Your task to perform on an android device: change the upload size in google photos Image 0: 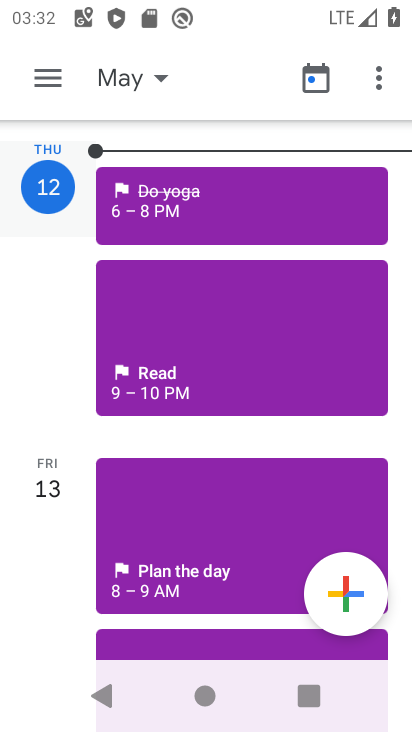
Step 0: press home button
Your task to perform on an android device: change the upload size in google photos Image 1: 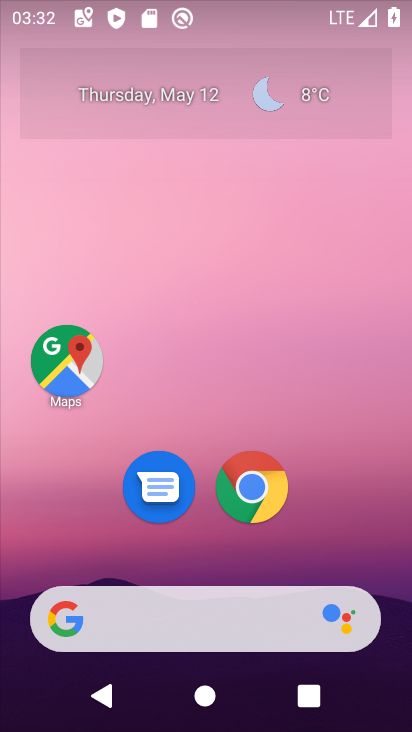
Step 1: drag from (351, 515) to (379, 173)
Your task to perform on an android device: change the upload size in google photos Image 2: 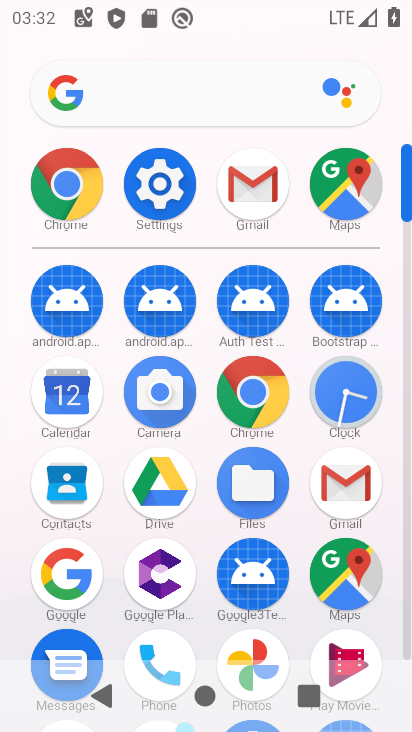
Step 2: drag from (301, 613) to (327, 396)
Your task to perform on an android device: change the upload size in google photos Image 3: 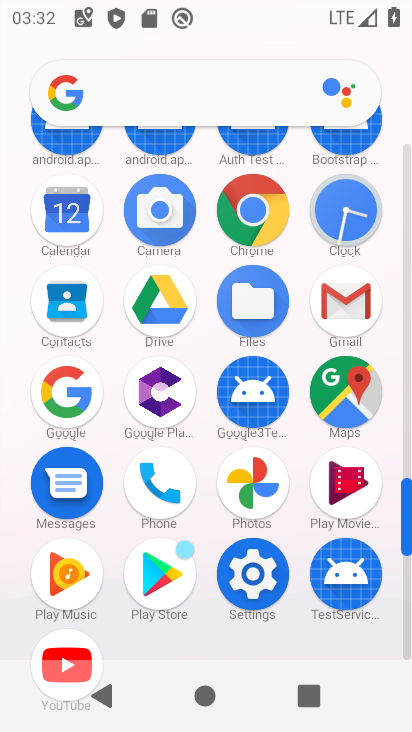
Step 3: click (268, 478)
Your task to perform on an android device: change the upload size in google photos Image 4: 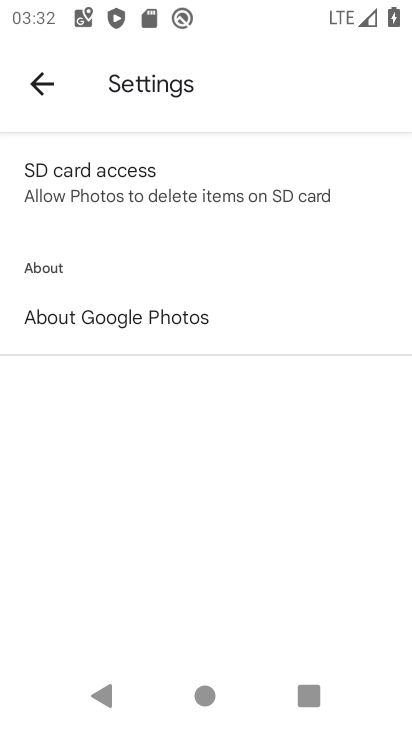
Step 4: click (55, 92)
Your task to perform on an android device: change the upload size in google photos Image 5: 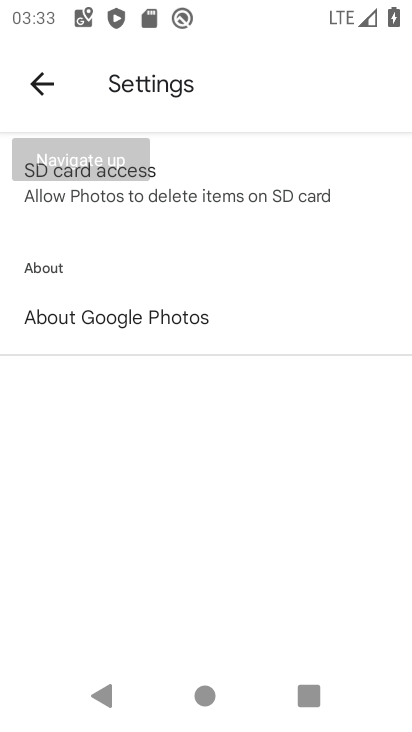
Step 5: click (39, 79)
Your task to perform on an android device: change the upload size in google photos Image 6: 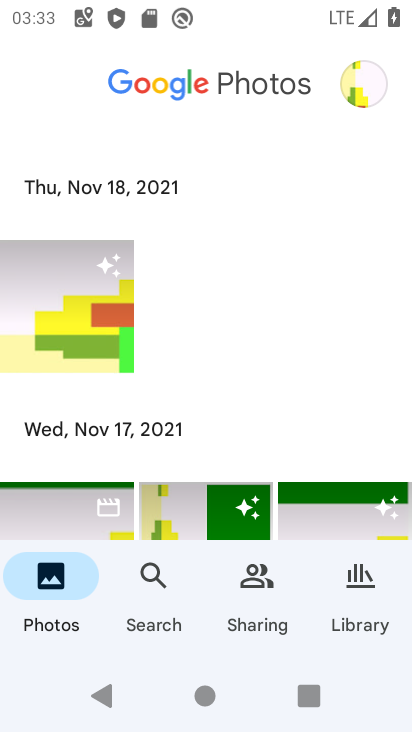
Step 6: click (353, 82)
Your task to perform on an android device: change the upload size in google photos Image 7: 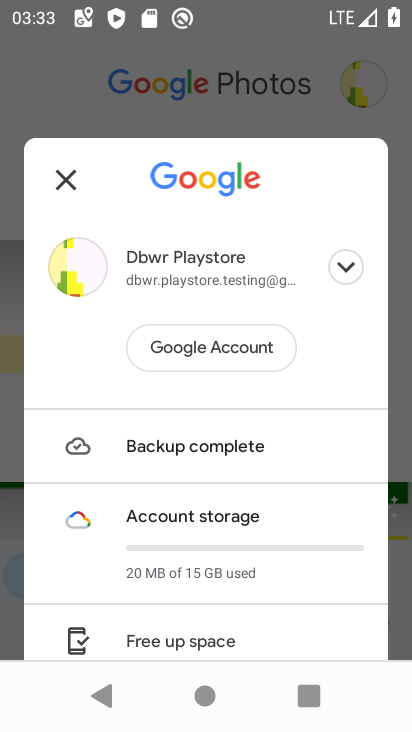
Step 7: drag from (275, 554) to (411, 121)
Your task to perform on an android device: change the upload size in google photos Image 8: 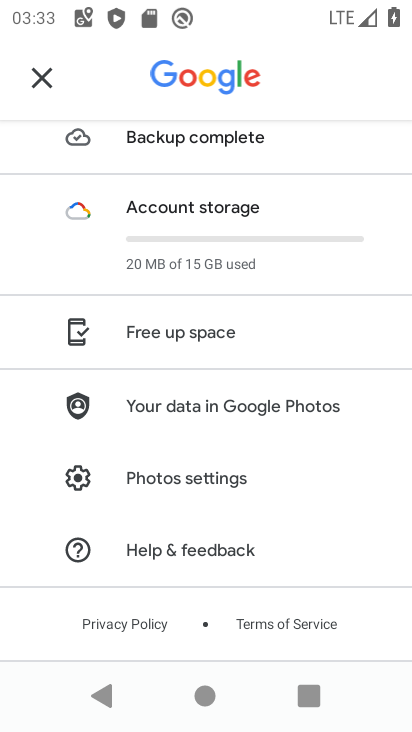
Step 8: click (184, 489)
Your task to perform on an android device: change the upload size in google photos Image 9: 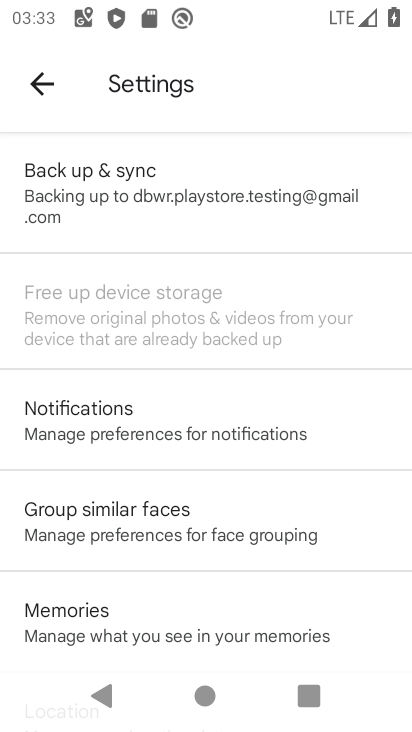
Step 9: click (229, 194)
Your task to perform on an android device: change the upload size in google photos Image 10: 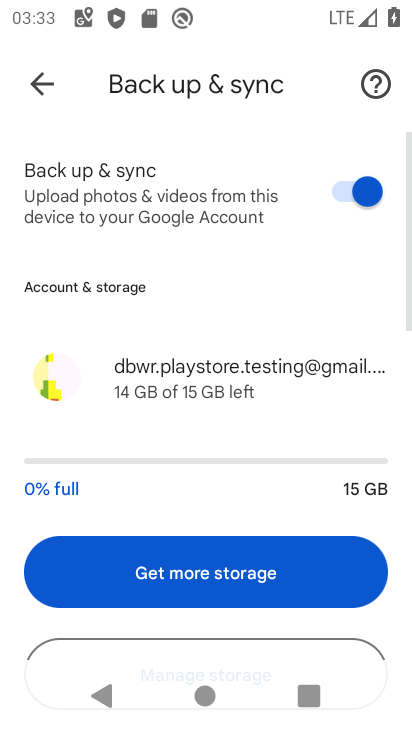
Step 10: drag from (293, 490) to (319, 121)
Your task to perform on an android device: change the upload size in google photos Image 11: 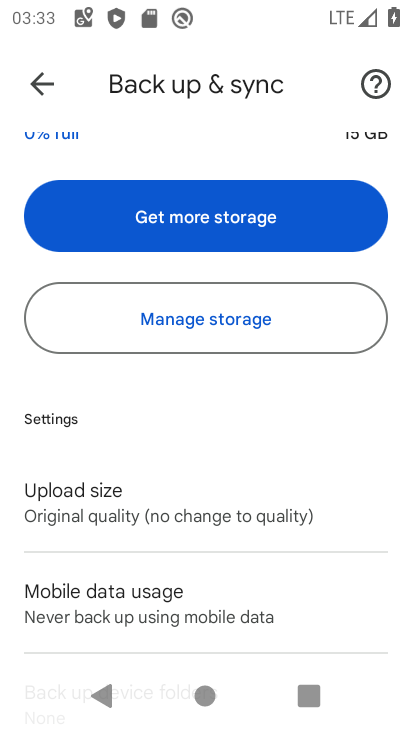
Step 11: drag from (249, 488) to (318, 202)
Your task to perform on an android device: change the upload size in google photos Image 12: 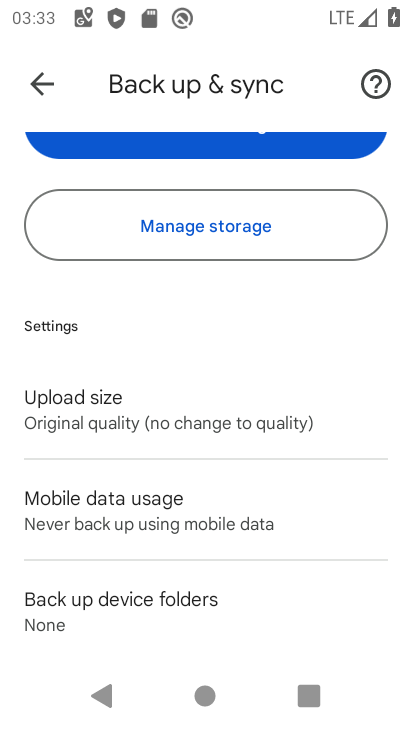
Step 12: drag from (242, 303) to (236, 452)
Your task to perform on an android device: change the upload size in google photos Image 13: 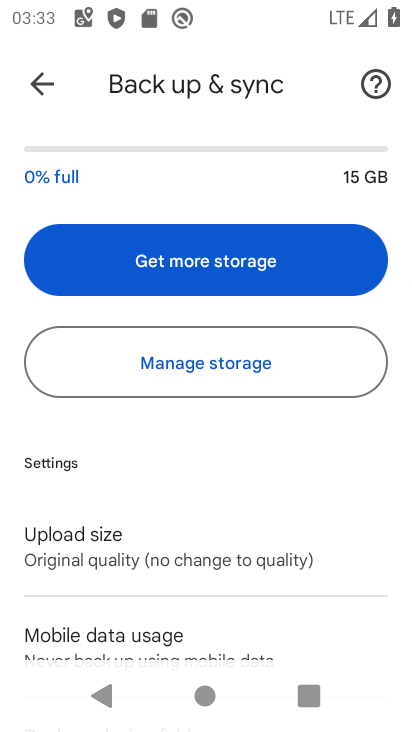
Step 13: click (177, 558)
Your task to perform on an android device: change the upload size in google photos Image 14: 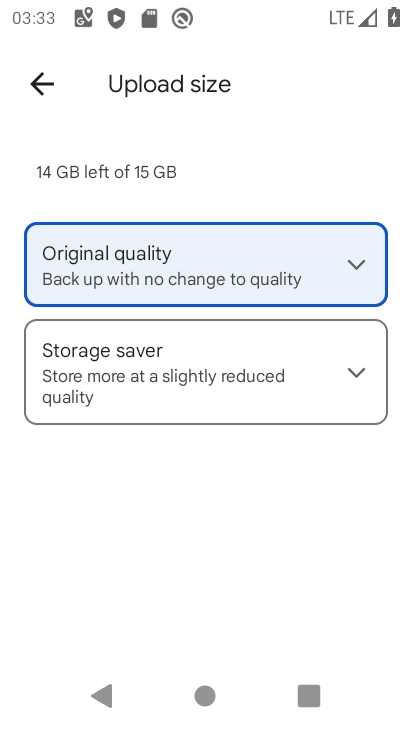
Step 14: click (184, 377)
Your task to perform on an android device: change the upload size in google photos Image 15: 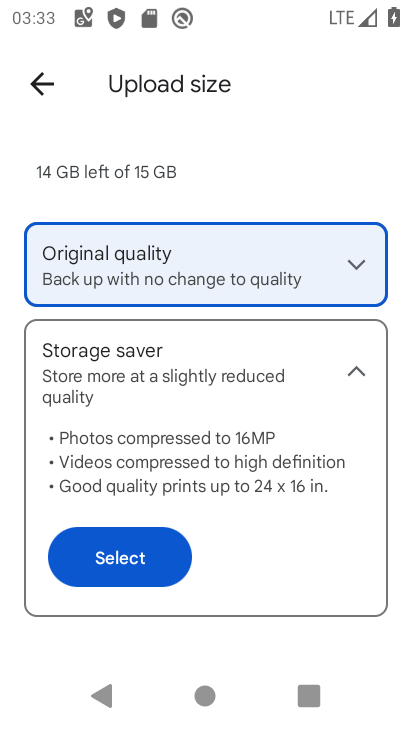
Step 15: click (151, 545)
Your task to perform on an android device: change the upload size in google photos Image 16: 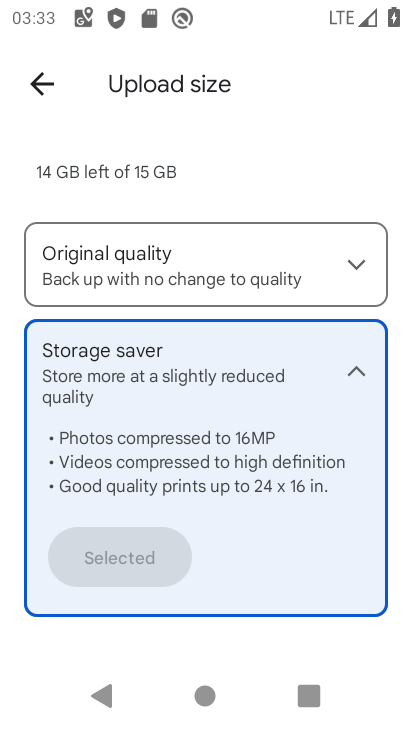
Step 16: task complete